Your task to perform on an android device: When is my next appointment? Image 0: 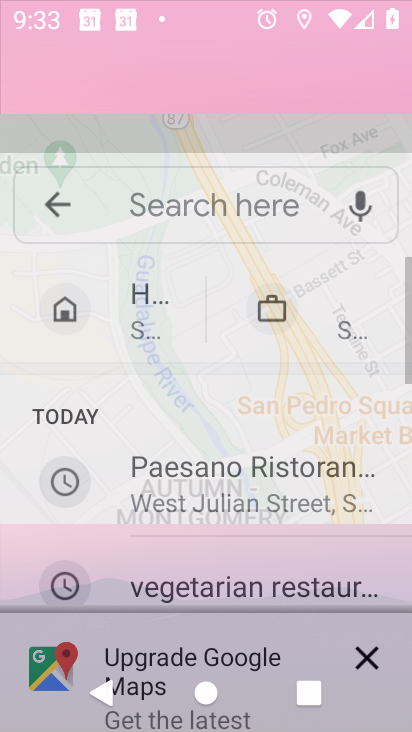
Step 0: click (241, 15)
Your task to perform on an android device: When is my next appointment? Image 1: 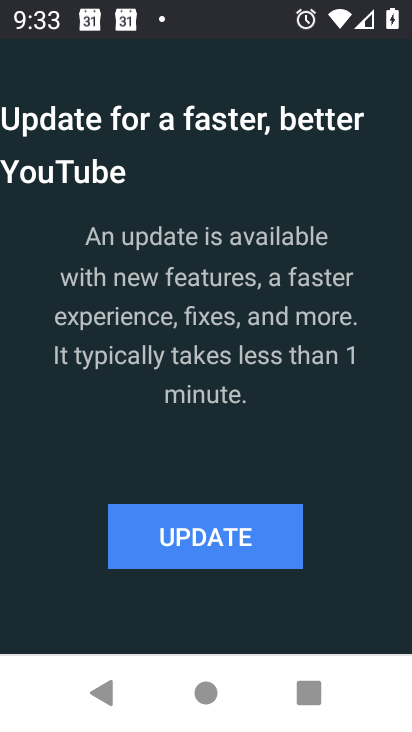
Step 1: press back button
Your task to perform on an android device: When is my next appointment? Image 2: 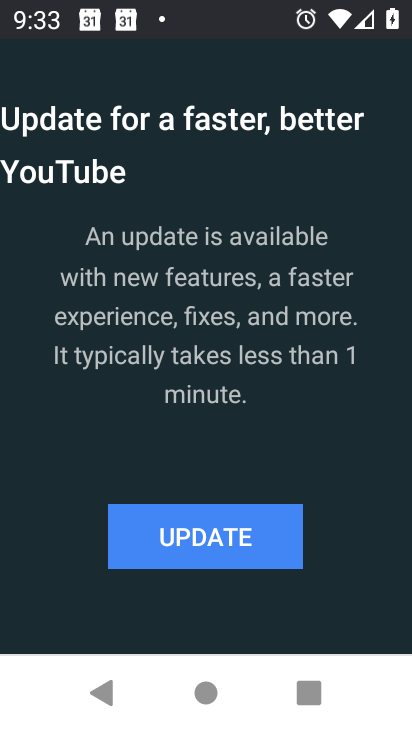
Step 2: press back button
Your task to perform on an android device: When is my next appointment? Image 3: 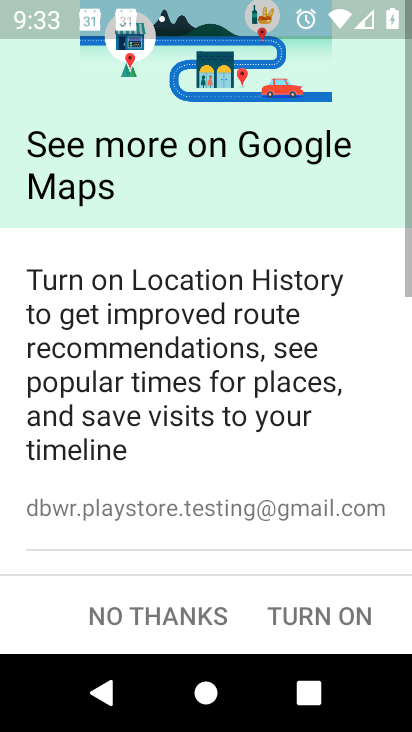
Step 3: press back button
Your task to perform on an android device: When is my next appointment? Image 4: 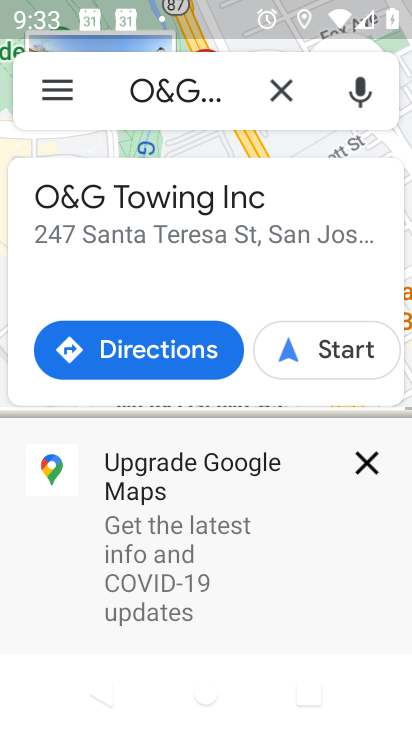
Step 4: press home button
Your task to perform on an android device: When is my next appointment? Image 5: 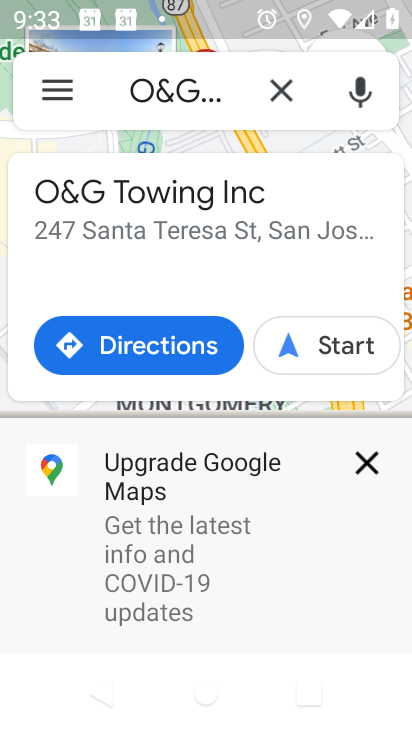
Step 5: press home button
Your task to perform on an android device: When is my next appointment? Image 6: 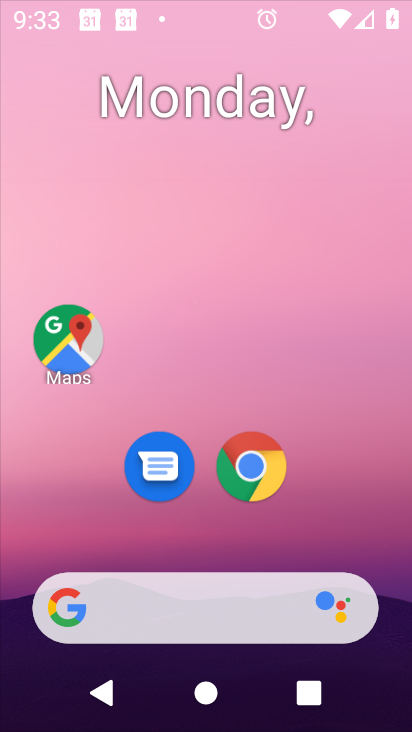
Step 6: press home button
Your task to perform on an android device: When is my next appointment? Image 7: 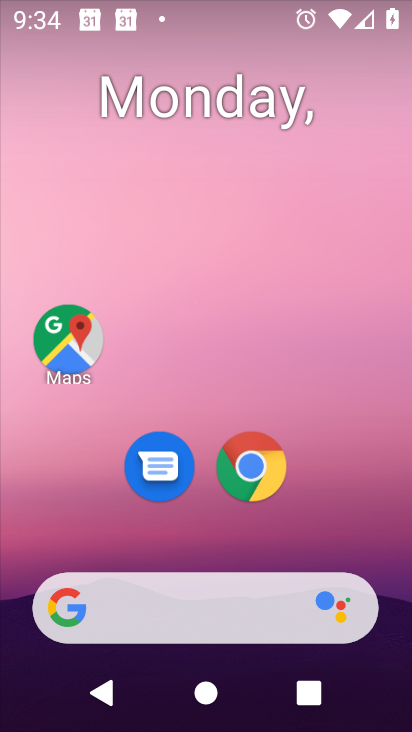
Step 7: drag from (386, 575) to (158, 2)
Your task to perform on an android device: When is my next appointment? Image 8: 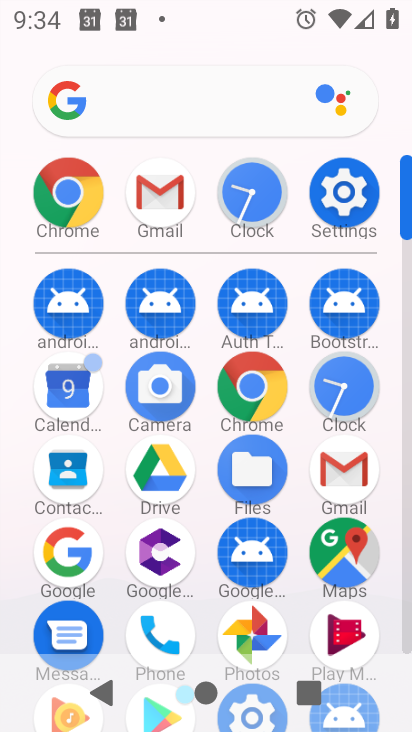
Step 8: click (70, 392)
Your task to perform on an android device: When is my next appointment? Image 9: 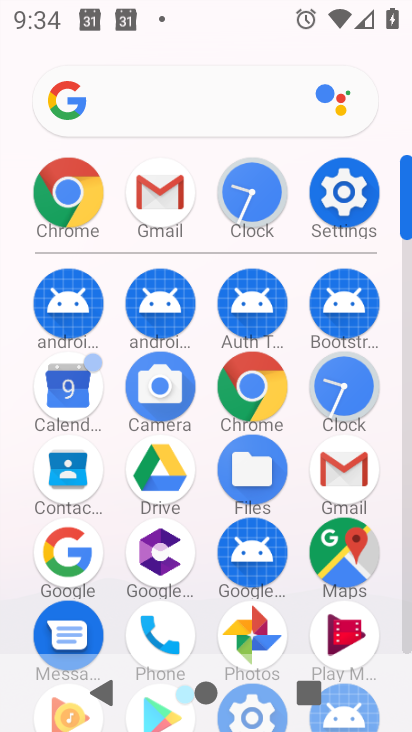
Step 9: click (70, 392)
Your task to perform on an android device: When is my next appointment? Image 10: 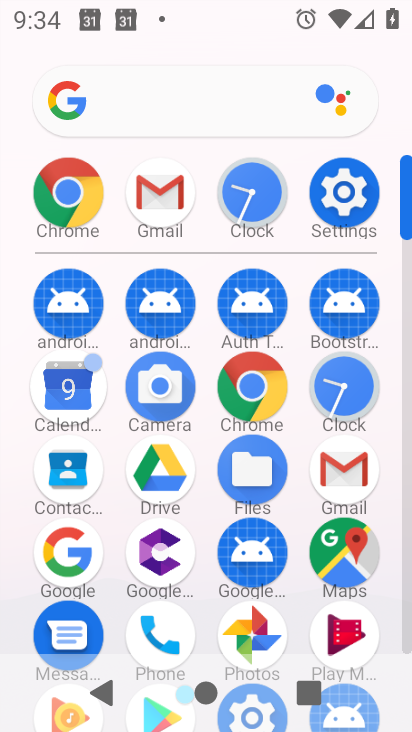
Step 10: click (70, 392)
Your task to perform on an android device: When is my next appointment? Image 11: 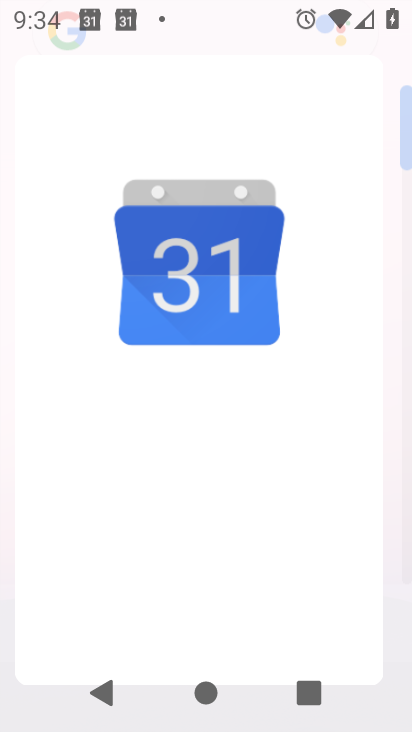
Step 11: click (70, 392)
Your task to perform on an android device: When is my next appointment? Image 12: 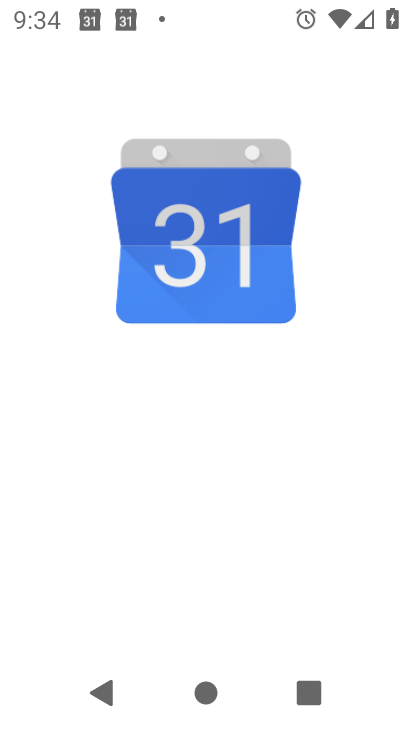
Step 12: click (70, 392)
Your task to perform on an android device: When is my next appointment? Image 13: 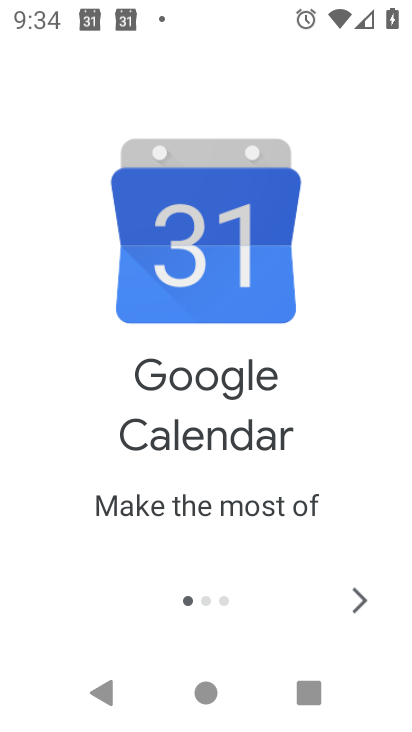
Step 13: click (351, 598)
Your task to perform on an android device: When is my next appointment? Image 14: 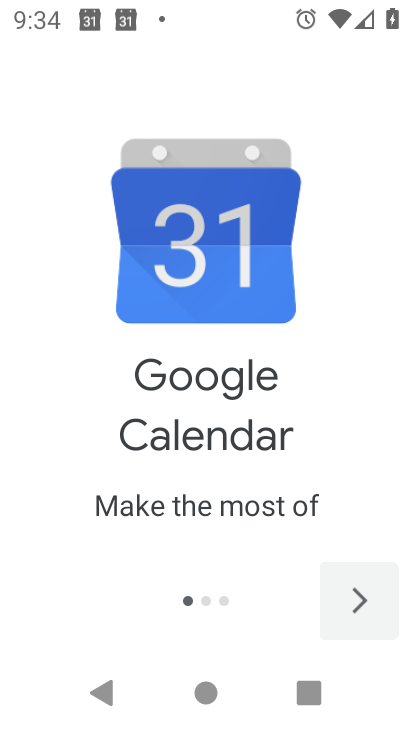
Step 14: click (351, 598)
Your task to perform on an android device: When is my next appointment? Image 15: 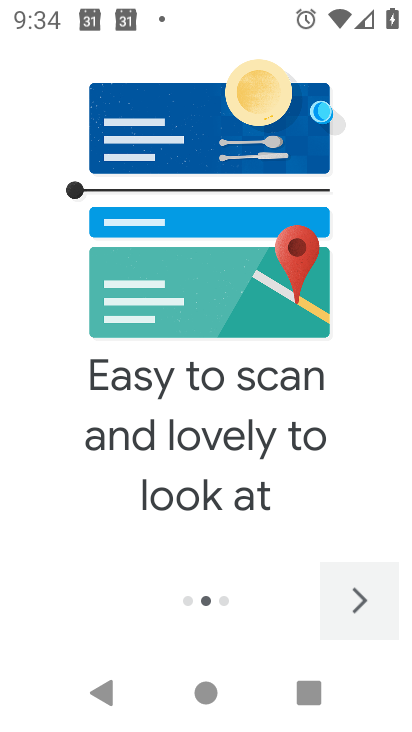
Step 15: click (356, 600)
Your task to perform on an android device: When is my next appointment? Image 16: 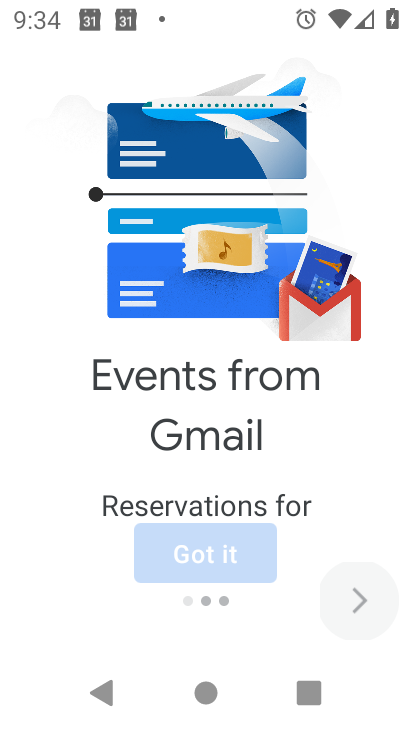
Step 16: click (356, 600)
Your task to perform on an android device: When is my next appointment? Image 17: 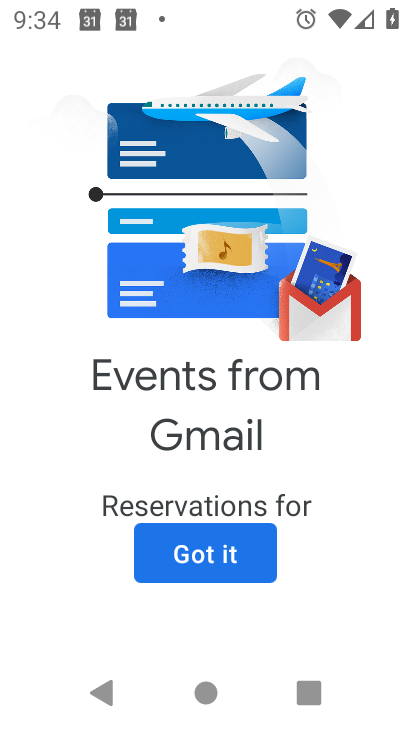
Step 17: click (356, 600)
Your task to perform on an android device: When is my next appointment? Image 18: 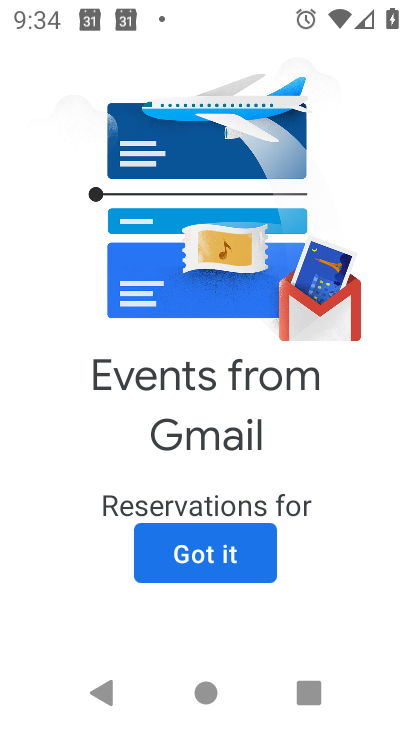
Step 18: click (150, 557)
Your task to perform on an android device: When is my next appointment? Image 19: 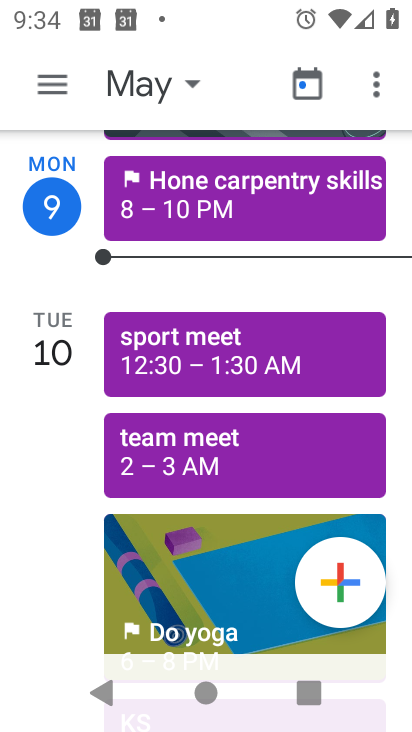
Step 19: drag from (252, 641) to (216, 148)
Your task to perform on an android device: When is my next appointment? Image 20: 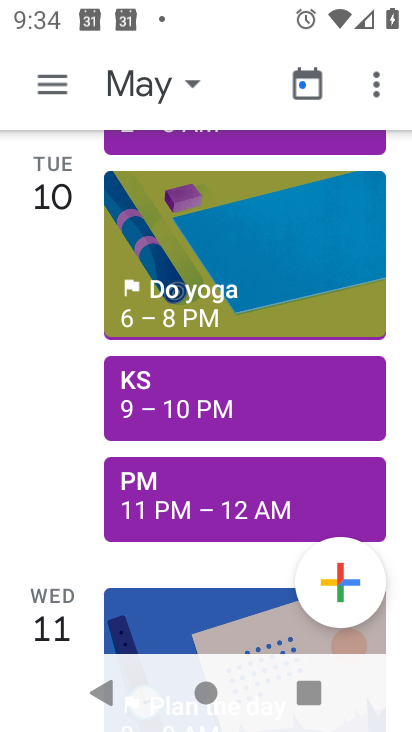
Step 20: drag from (284, 454) to (235, 165)
Your task to perform on an android device: When is my next appointment? Image 21: 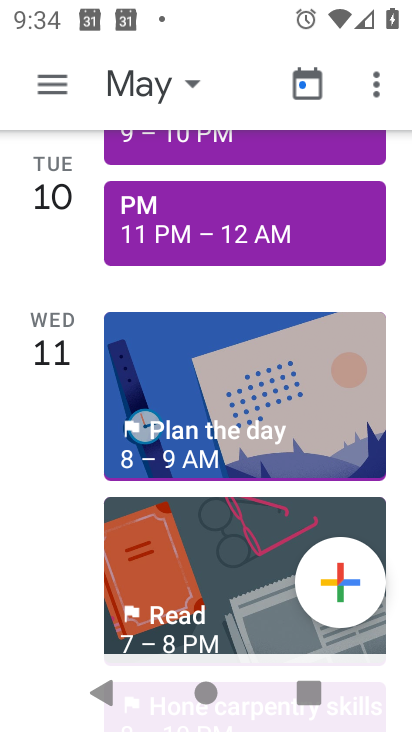
Step 21: drag from (249, 449) to (249, 186)
Your task to perform on an android device: When is my next appointment? Image 22: 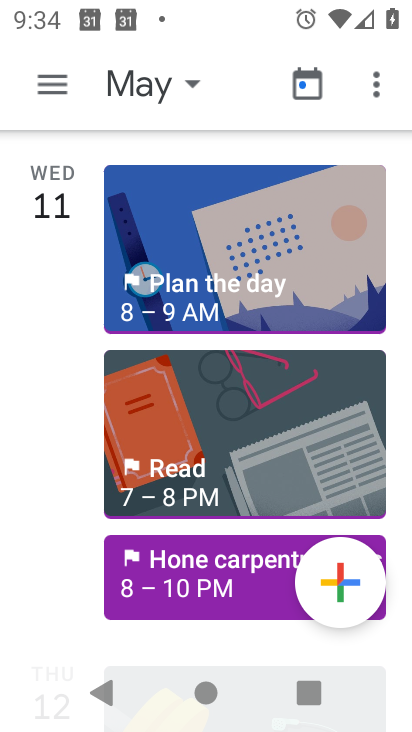
Step 22: drag from (286, 446) to (249, 158)
Your task to perform on an android device: When is my next appointment? Image 23: 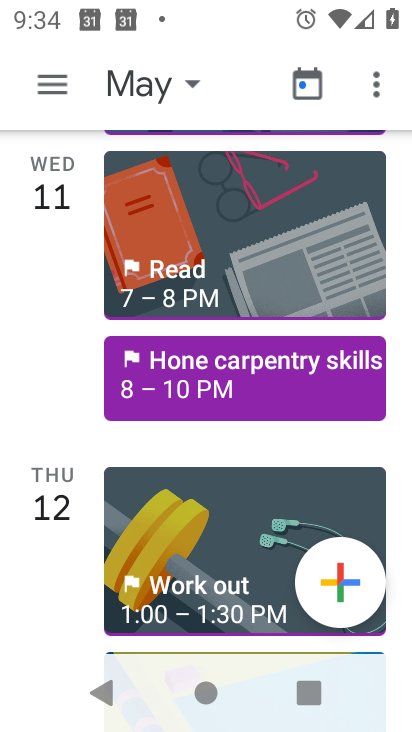
Step 23: drag from (312, 309) to (304, 226)
Your task to perform on an android device: When is my next appointment? Image 24: 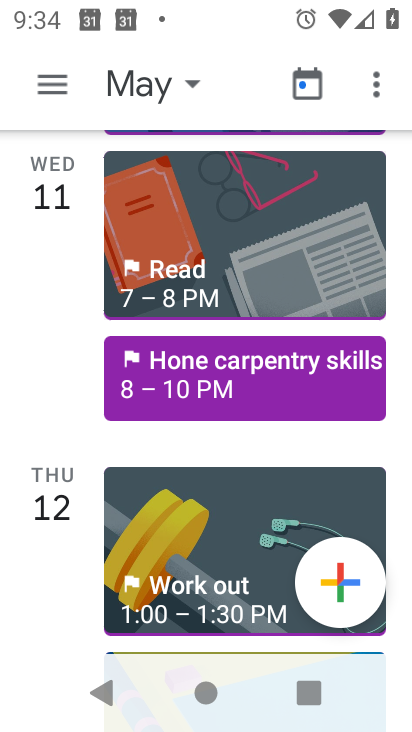
Step 24: drag from (305, 459) to (258, 167)
Your task to perform on an android device: When is my next appointment? Image 25: 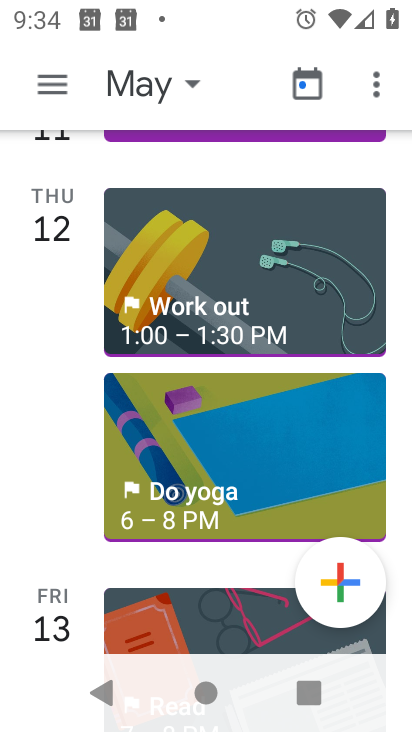
Step 25: drag from (193, 504) to (164, 91)
Your task to perform on an android device: When is my next appointment? Image 26: 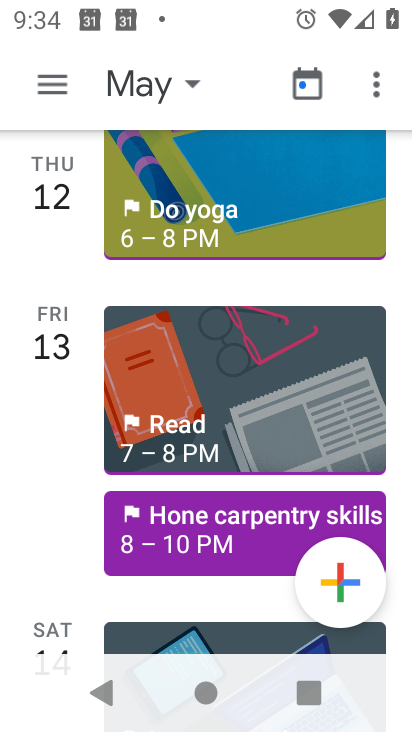
Step 26: drag from (205, 408) to (205, 107)
Your task to perform on an android device: When is my next appointment? Image 27: 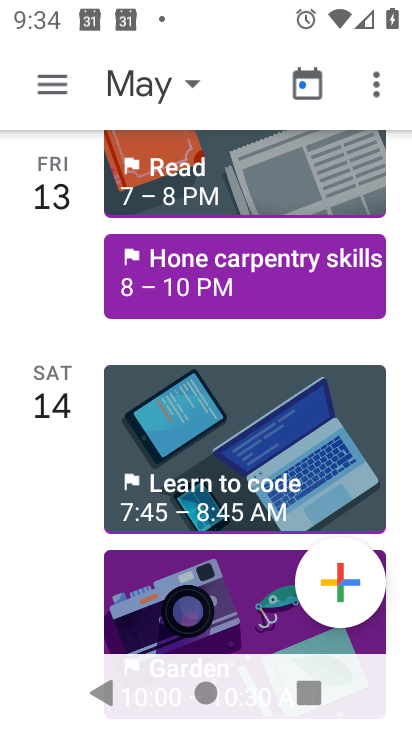
Step 27: drag from (260, 452) to (207, 245)
Your task to perform on an android device: When is my next appointment? Image 28: 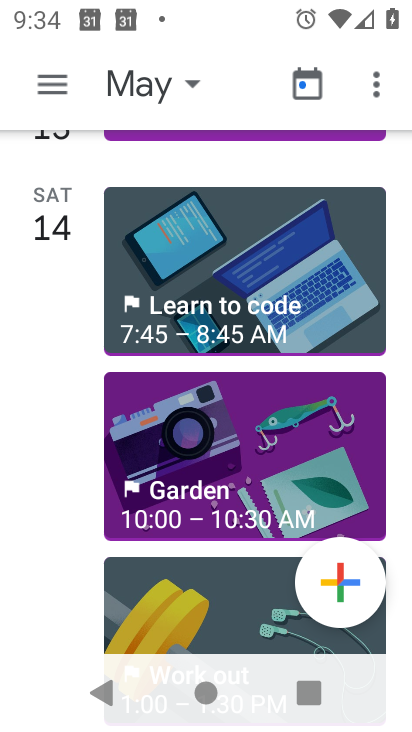
Step 28: drag from (207, 474) to (207, 142)
Your task to perform on an android device: When is my next appointment? Image 29: 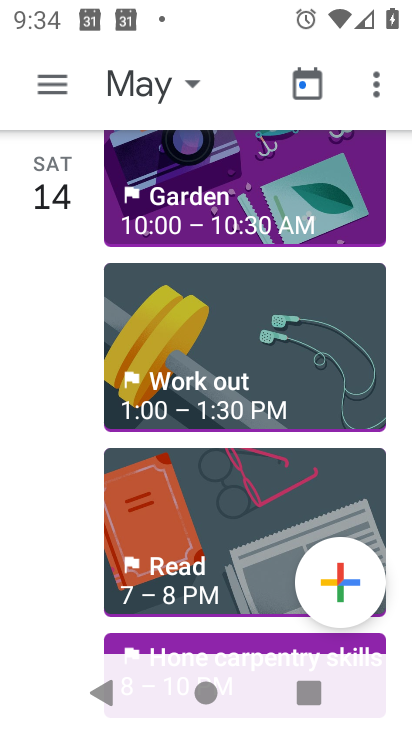
Step 29: drag from (210, 505) to (155, 160)
Your task to perform on an android device: When is my next appointment? Image 30: 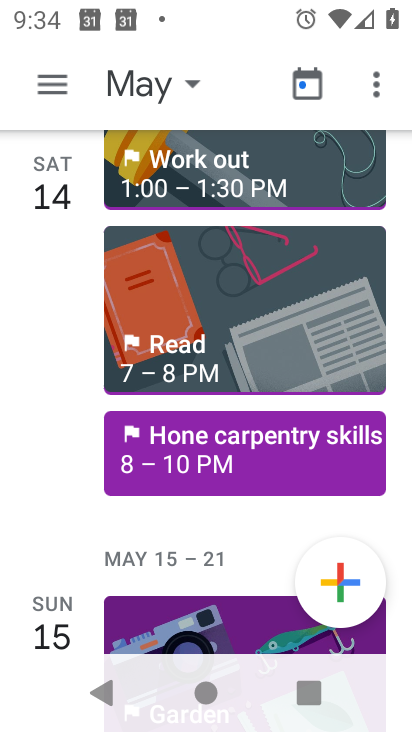
Step 30: drag from (167, 443) to (192, 85)
Your task to perform on an android device: When is my next appointment? Image 31: 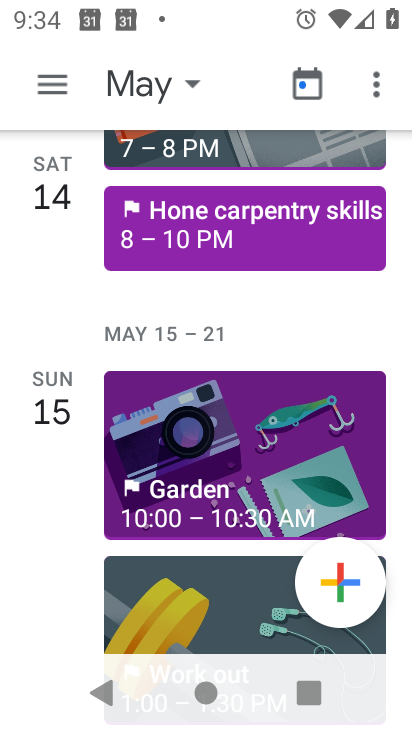
Step 31: click (161, 452)
Your task to perform on an android device: When is my next appointment? Image 32: 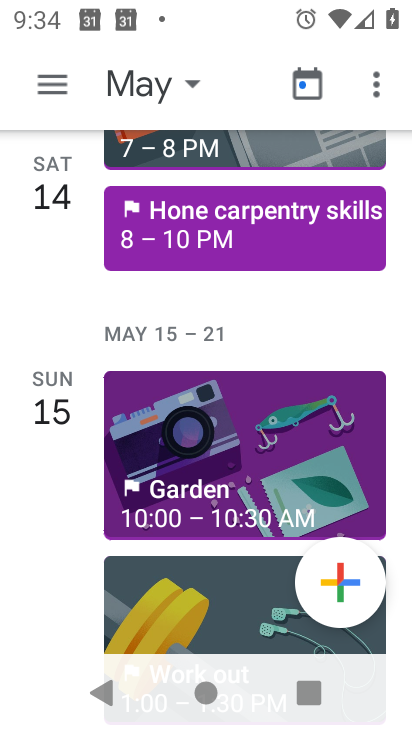
Step 32: click (161, 452)
Your task to perform on an android device: When is my next appointment? Image 33: 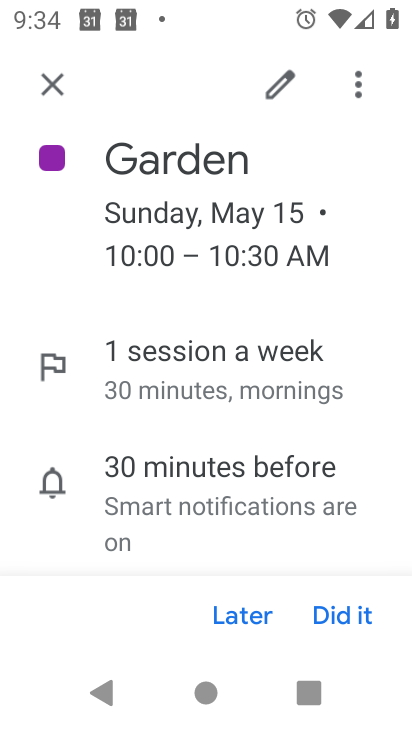
Step 33: click (57, 77)
Your task to perform on an android device: When is my next appointment? Image 34: 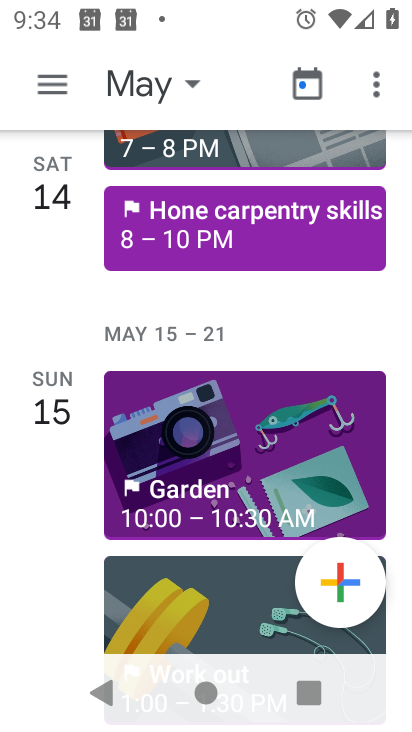
Step 34: task complete